Your task to perform on an android device: turn off javascript in the chrome app Image 0: 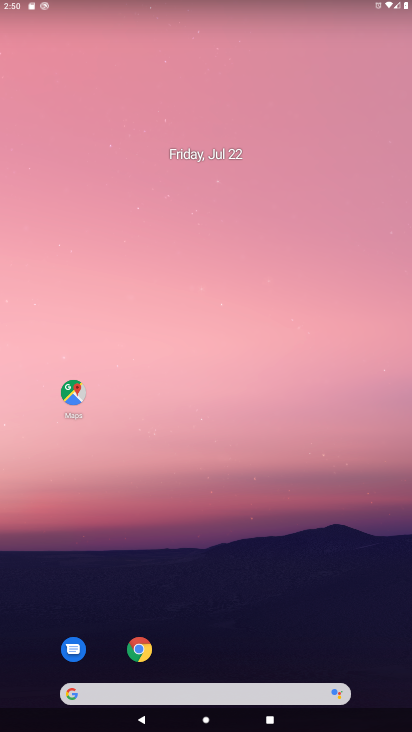
Step 0: click (140, 655)
Your task to perform on an android device: turn off javascript in the chrome app Image 1: 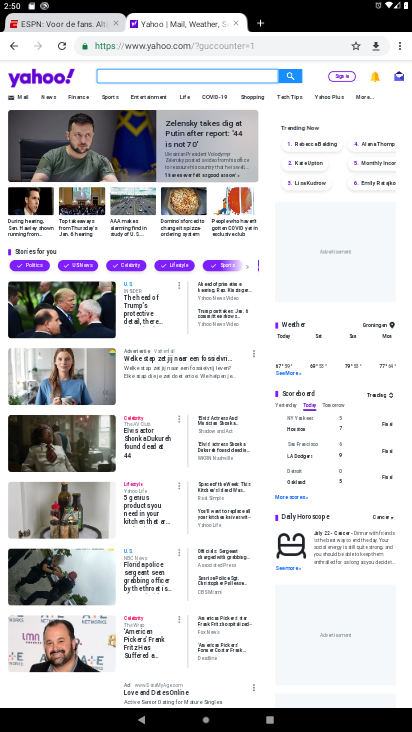
Step 1: click (399, 48)
Your task to perform on an android device: turn off javascript in the chrome app Image 2: 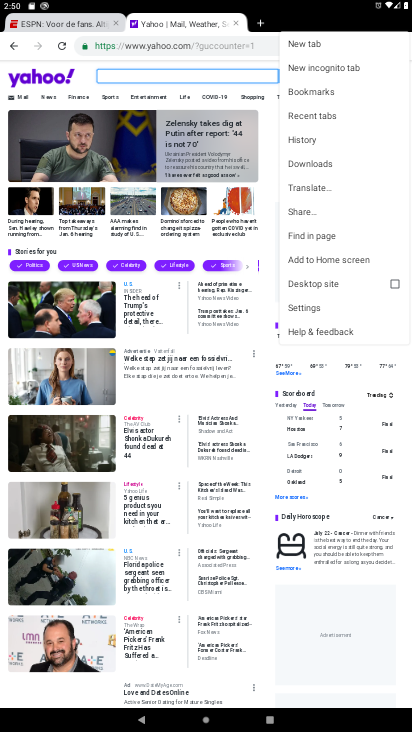
Step 2: click (301, 309)
Your task to perform on an android device: turn off javascript in the chrome app Image 3: 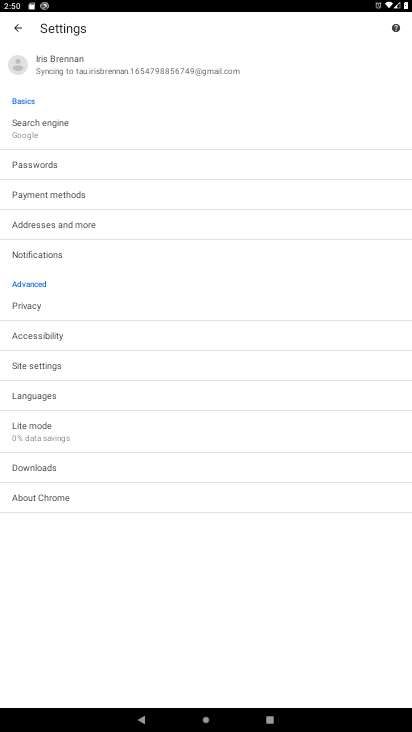
Step 3: click (45, 364)
Your task to perform on an android device: turn off javascript in the chrome app Image 4: 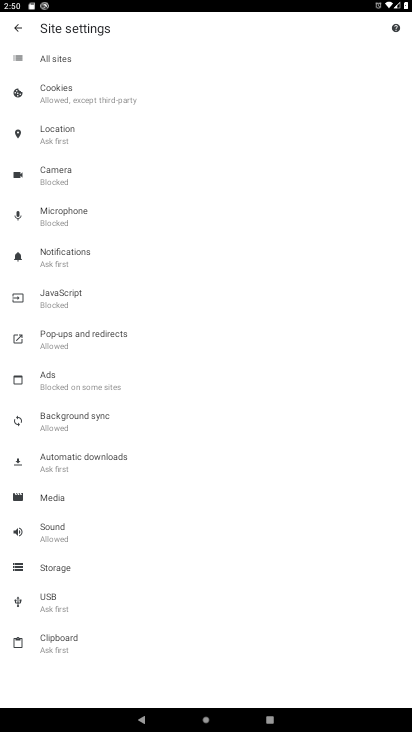
Step 4: click (51, 302)
Your task to perform on an android device: turn off javascript in the chrome app Image 5: 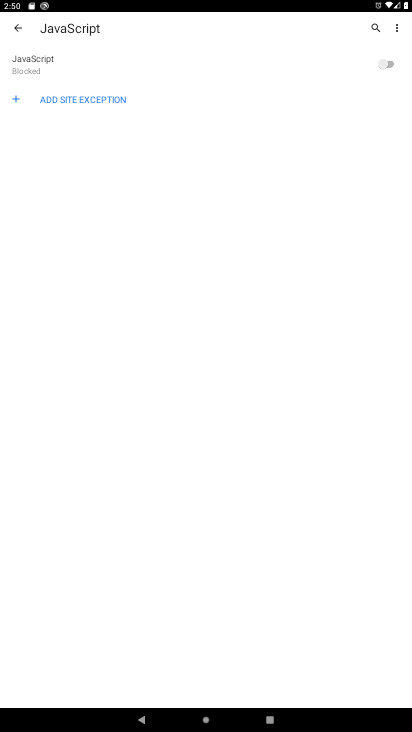
Step 5: task complete